Your task to perform on an android device: set the stopwatch Image 0: 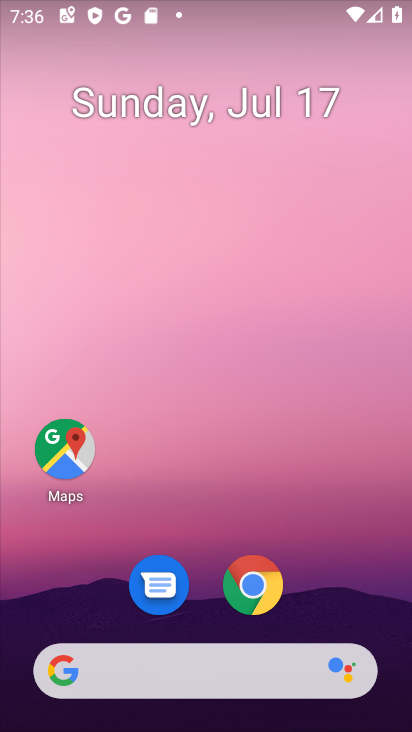
Step 0: drag from (340, 575) to (349, 72)
Your task to perform on an android device: set the stopwatch Image 1: 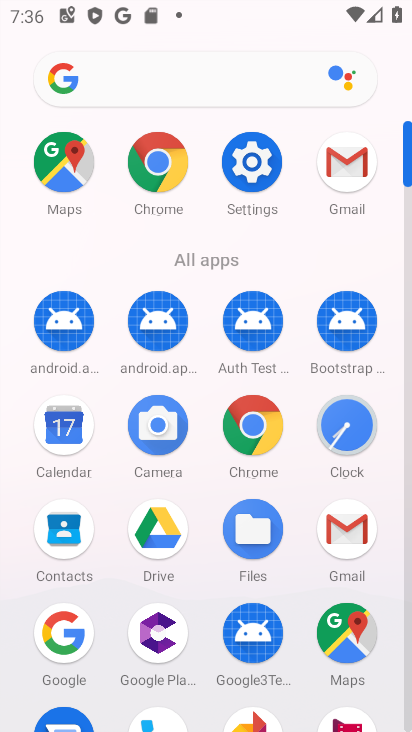
Step 1: click (344, 433)
Your task to perform on an android device: set the stopwatch Image 2: 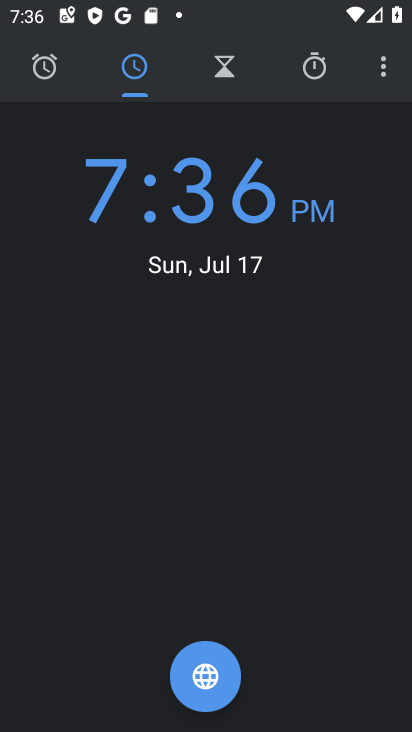
Step 2: click (319, 57)
Your task to perform on an android device: set the stopwatch Image 3: 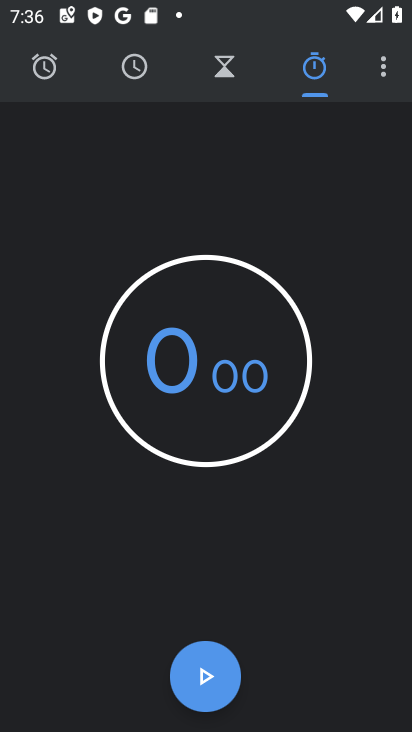
Step 3: task complete